Your task to perform on an android device: move an email to a new category in the gmail app Image 0: 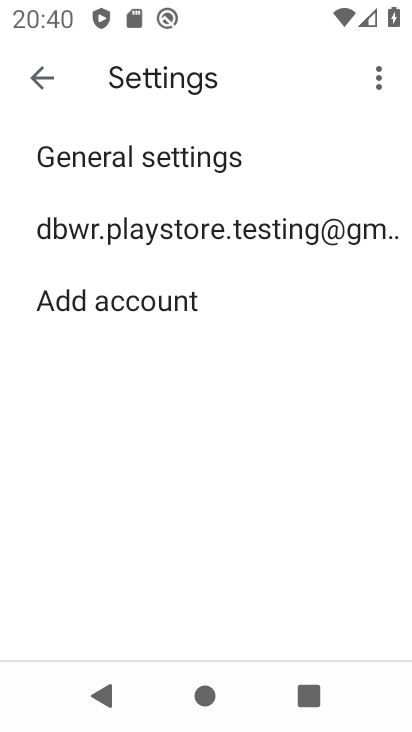
Step 0: press home button
Your task to perform on an android device: move an email to a new category in the gmail app Image 1: 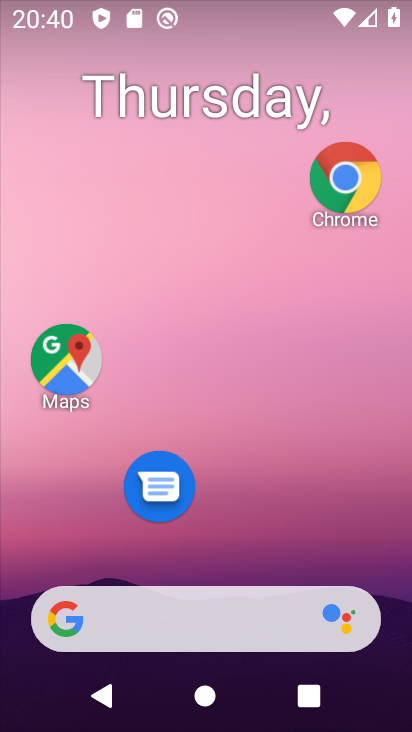
Step 1: drag from (224, 560) to (137, 26)
Your task to perform on an android device: move an email to a new category in the gmail app Image 2: 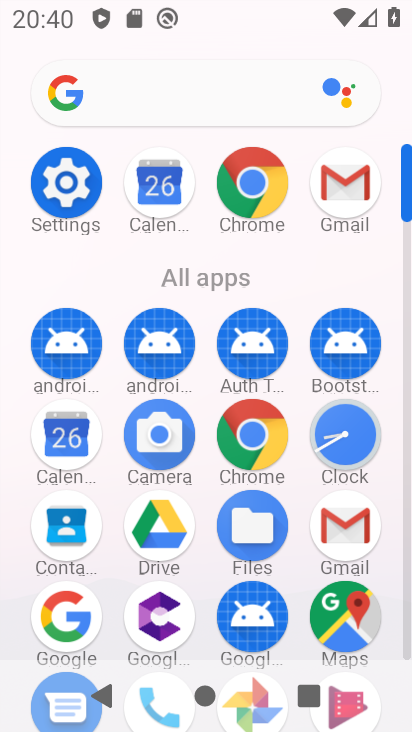
Step 2: click (372, 543)
Your task to perform on an android device: move an email to a new category in the gmail app Image 3: 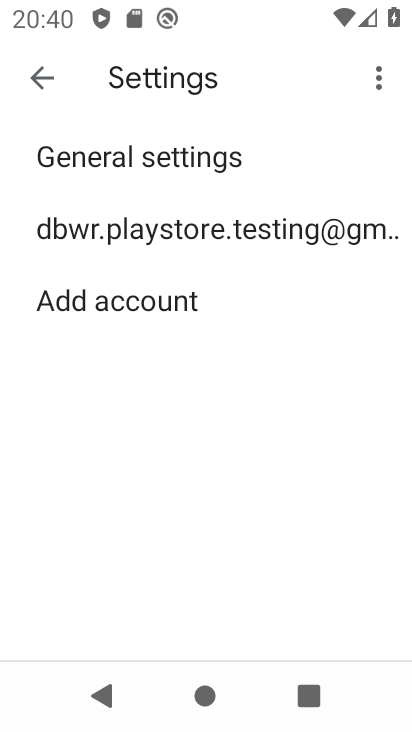
Step 3: click (30, 85)
Your task to perform on an android device: move an email to a new category in the gmail app Image 4: 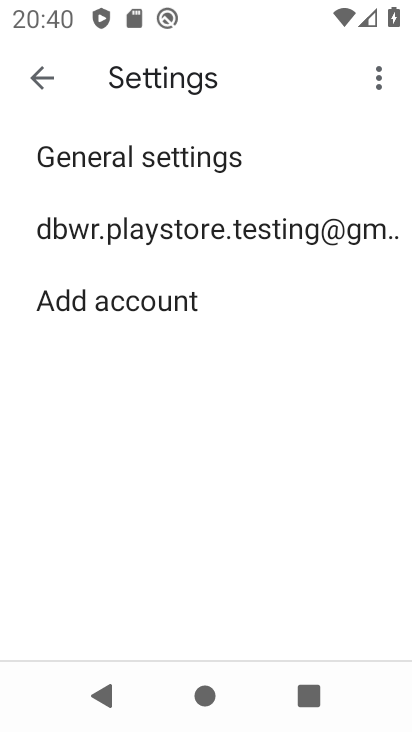
Step 4: click (30, 96)
Your task to perform on an android device: move an email to a new category in the gmail app Image 5: 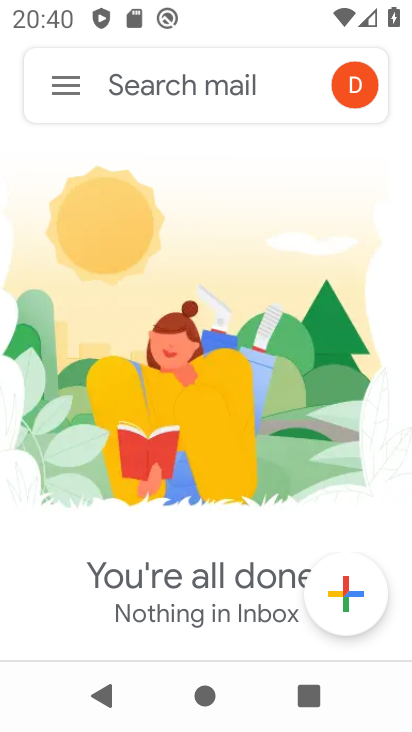
Step 5: task complete